Your task to perform on an android device: check android version Image 0: 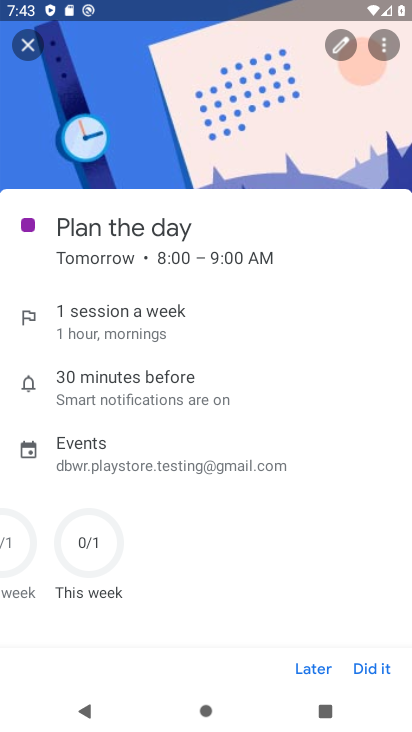
Step 0: press home button
Your task to perform on an android device: check android version Image 1: 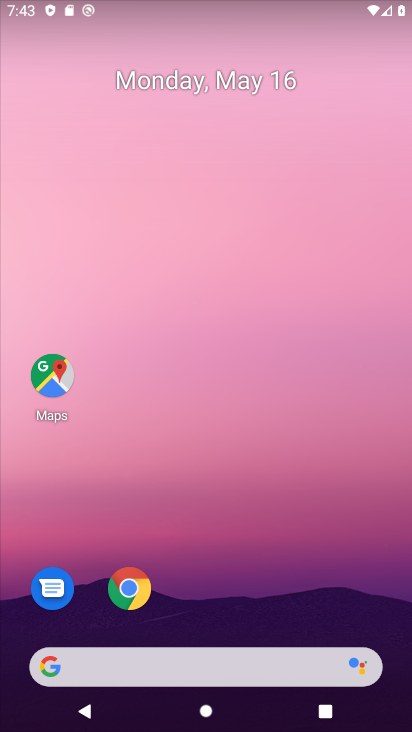
Step 1: drag from (356, 586) to (360, 86)
Your task to perform on an android device: check android version Image 2: 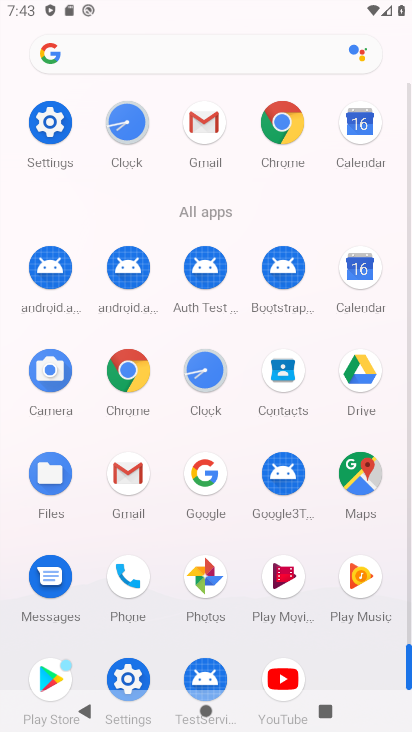
Step 2: click (54, 127)
Your task to perform on an android device: check android version Image 3: 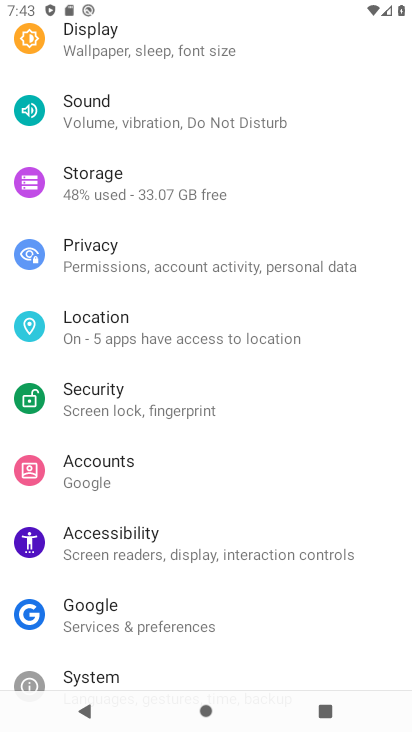
Step 3: drag from (347, 626) to (362, 423)
Your task to perform on an android device: check android version Image 4: 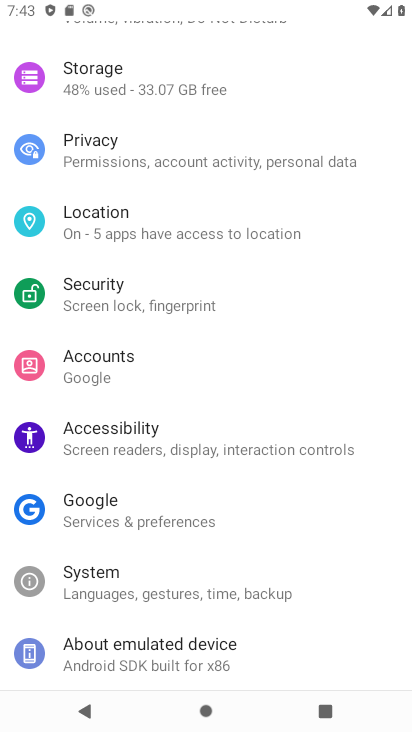
Step 4: drag from (339, 621) to (331, 386)
Your task to perform on an android device: check android version Image 5: 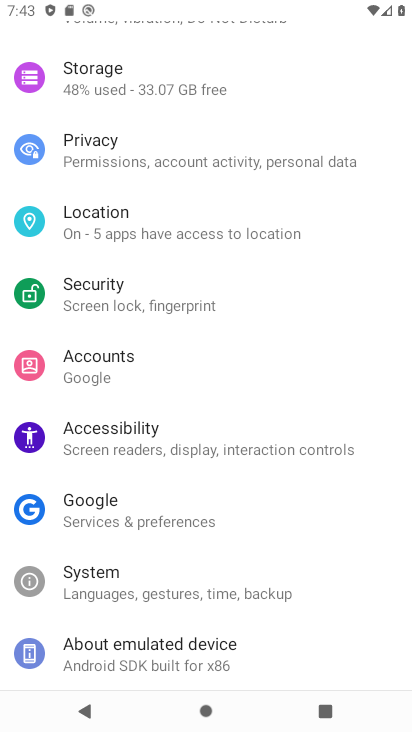
Step 5: drag from (350, 280) to (352, 453)
Your task to perform on an android device: check android version Image 6: 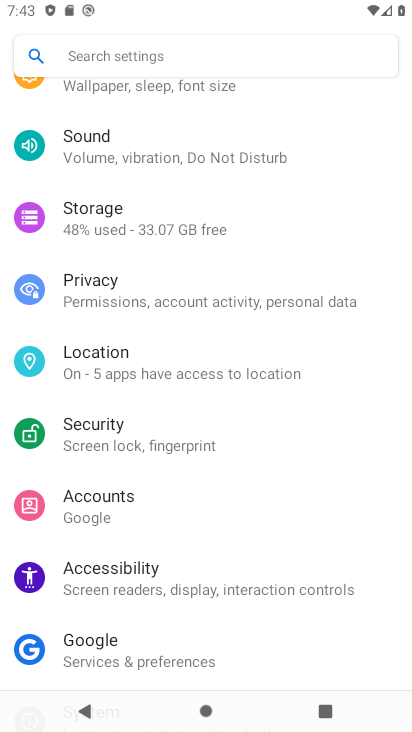
Step 6: drag from (372, 242) to (358, 443)
Your task to perform on an android device: check android version Image 7: 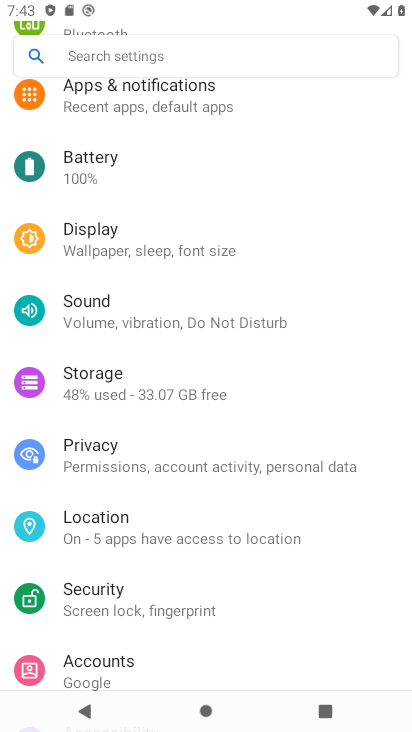
Step 7: drag from (356, 262) to (350, 452)
Your task to perform on an android device: check android version Image 8: 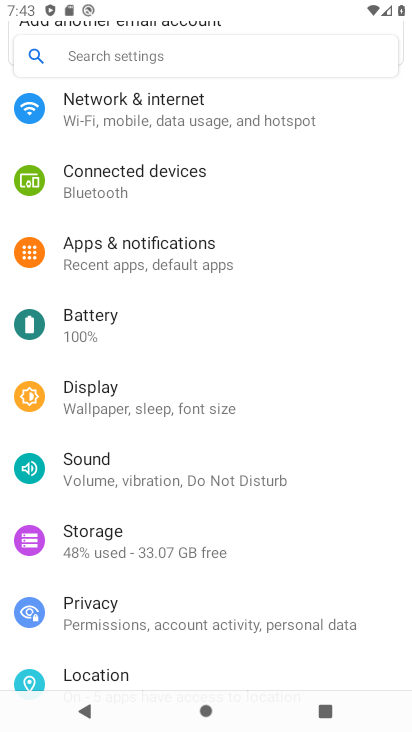
Step 8: drag from (360, 254) to (348, 410)
Your task to perform on an android device: check android version Image 9: 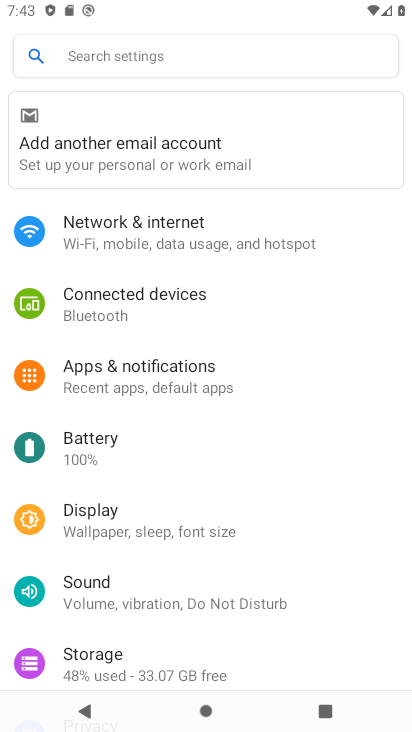
Step 9: drag from (354, 559) to (359, 387)
Your task to perform on an android device: check android version Image 10: 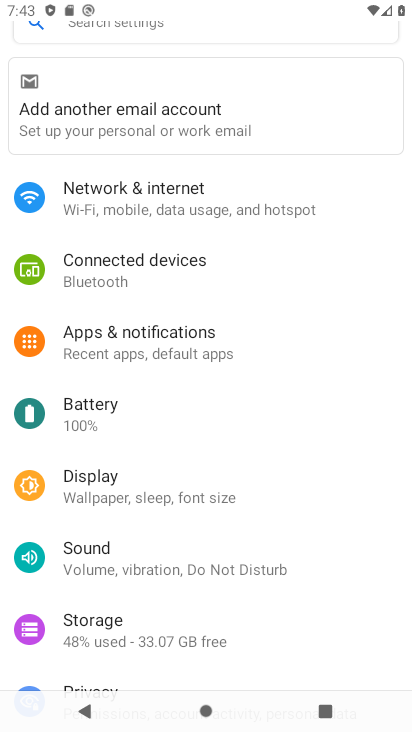
Step 10: drag from (360, 590) to (370, 431)
Your task to perform on an android device: check android version Image 11: 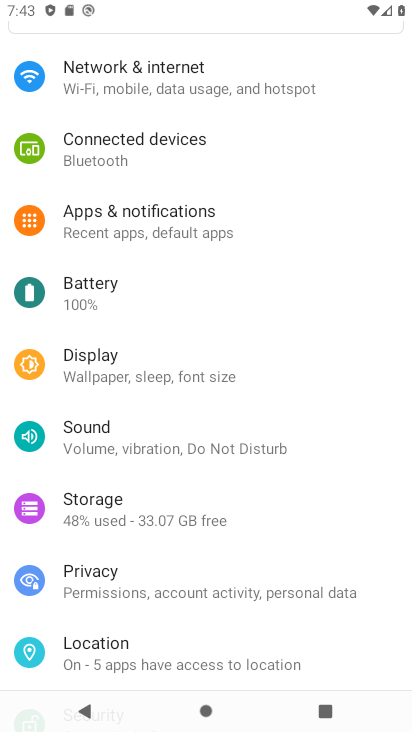
Step 11: drag from (364, 626) to (368, 405)
Your task to perform on an android device: check android version Image 12: 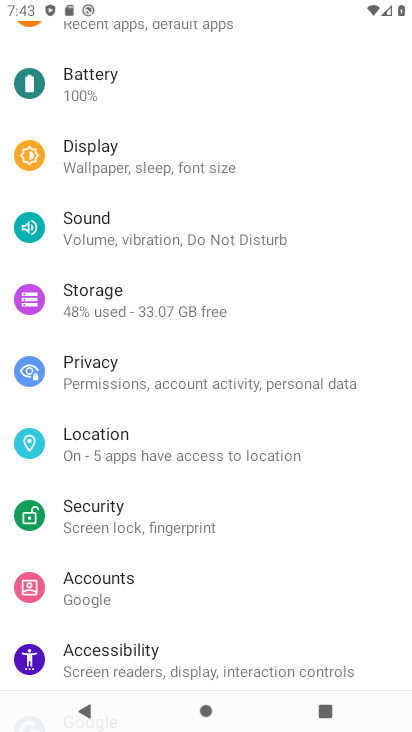
Step 12: drag from (352, 622) to (375, 349)
Your task to perform on an android device: check android version Image 13: 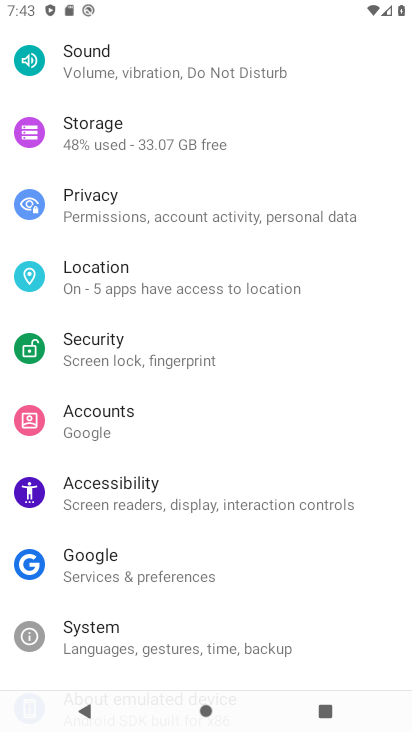
Step 13: drag from (332, 615) to (332, 376)
Your task to perform on an android device: check android version Image 14: 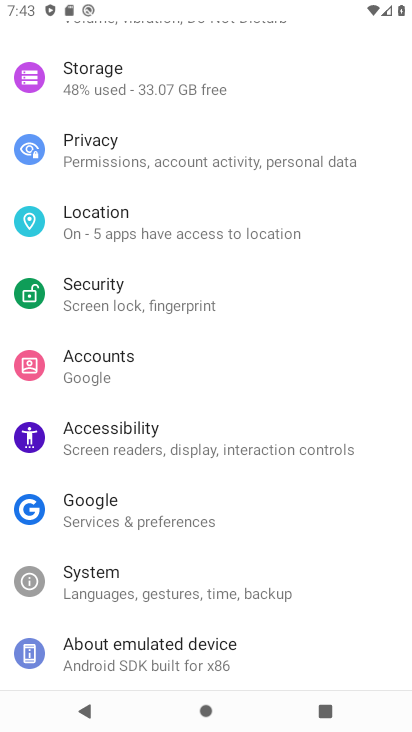
Step 14: click (199, 582)
Your task to perform on an android device: check android version Image 15: 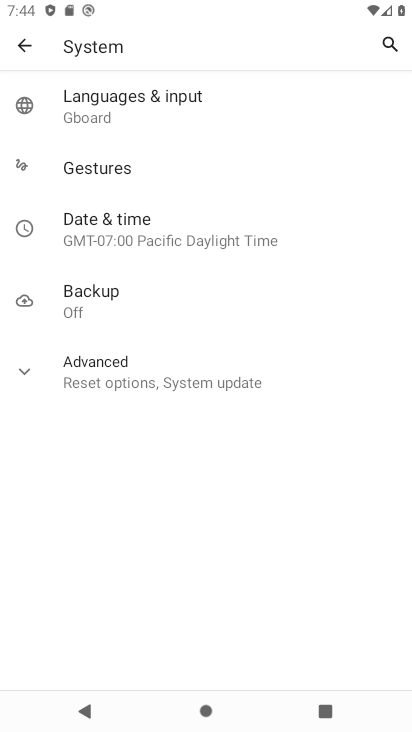
Step 15: click (259, 374)
Your task to perform on an android device: check android version Image 16: 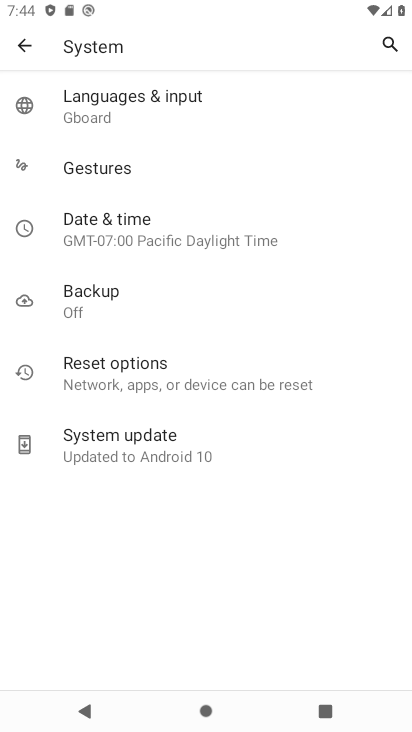
Step 16: click (192, 438)
Your task to perform on an android device: check android version Image 17: 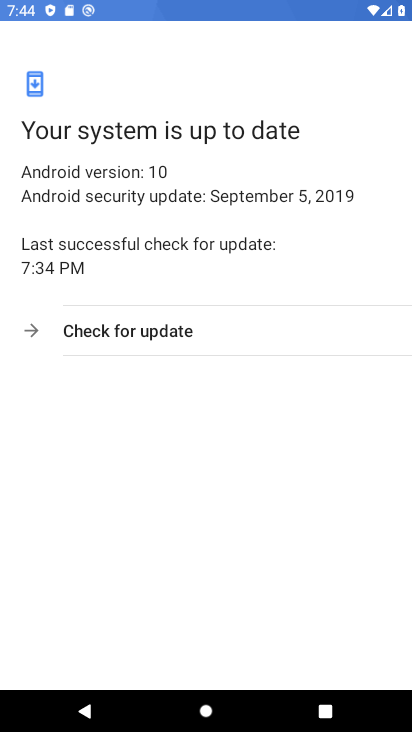
Step 17: task complete